Your task to perform on an android device: turn on improve location accuracy Image 0: 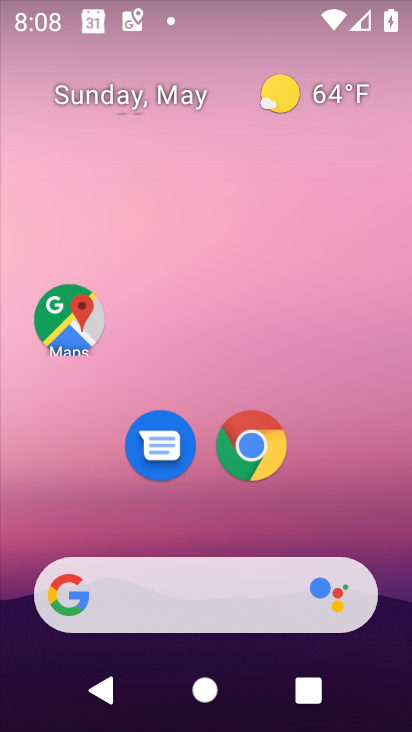
Step 0: drag from (177, 434) to (267, 35)
Your task to perform on an android device: turn on improve location accuracy Image 1: 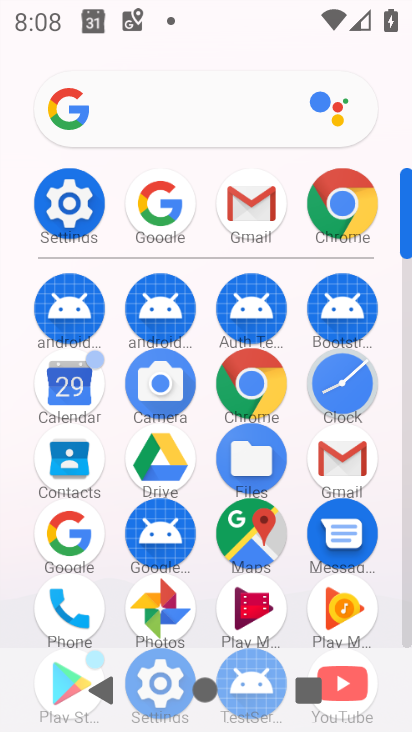
Step 1: click (69, 215)
Your task to perform on an android device: turn on improve location accuracy Image 2: 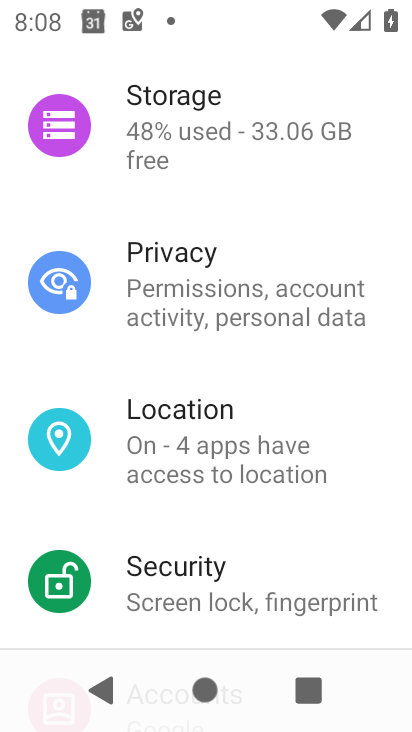
Step 2: click (213, 444)
Your task to perform on an android device: turn on improve location accuracy Image 3: 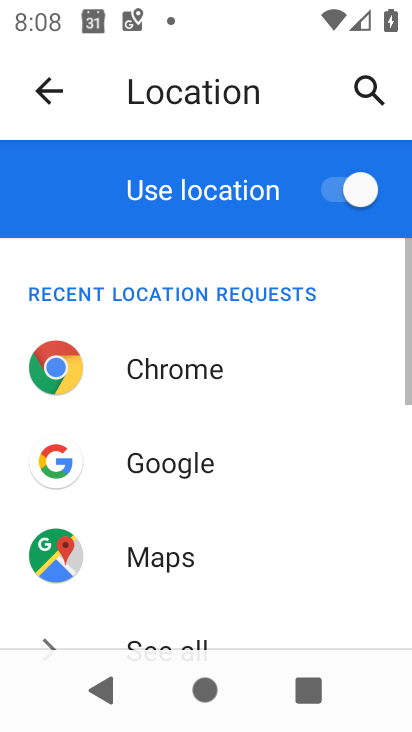
Step 3: drag from (282, 535) to (214, 5)
Your task to perform on an android device: turn on improve location accuracy Image 4: 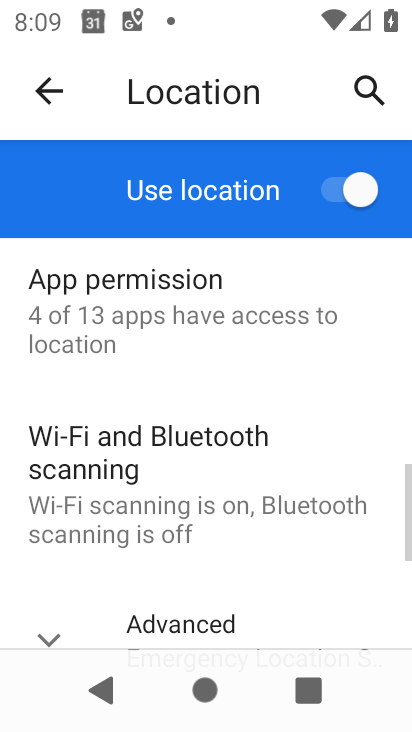
Step 4: drag from (211, 536) to (253, 147)
Your task to perform on an android device: turn on improve location accuracy Image 5: 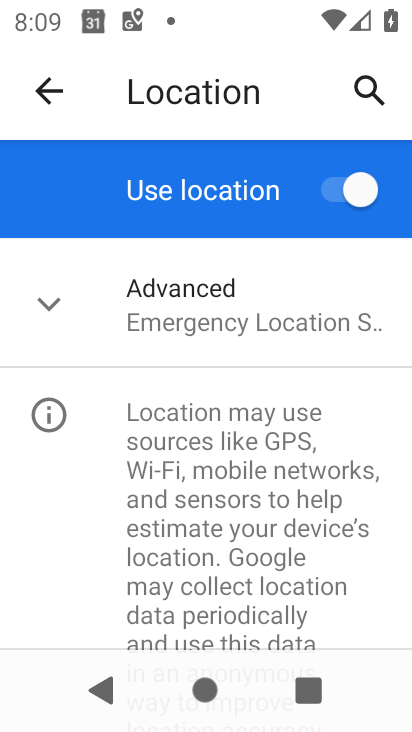
Step 5: click (158, 272)
Your task to perform on an android device: turn on improve location accuracy Image 6: 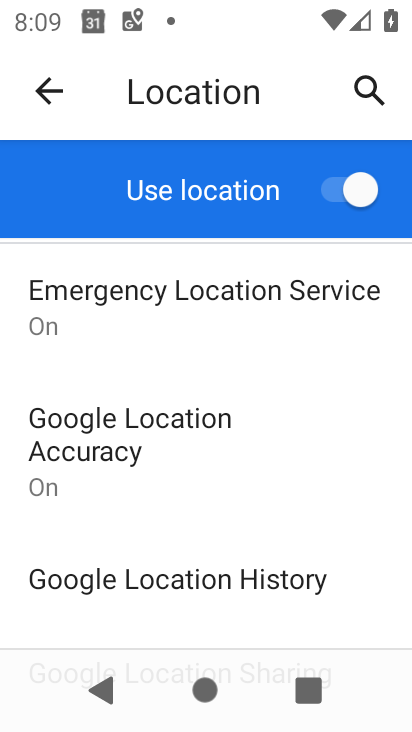
Step 6: drag from (186, 587) to (284, 38)
Your task to perform on an android device: turn on improve location accuracy Image 7: 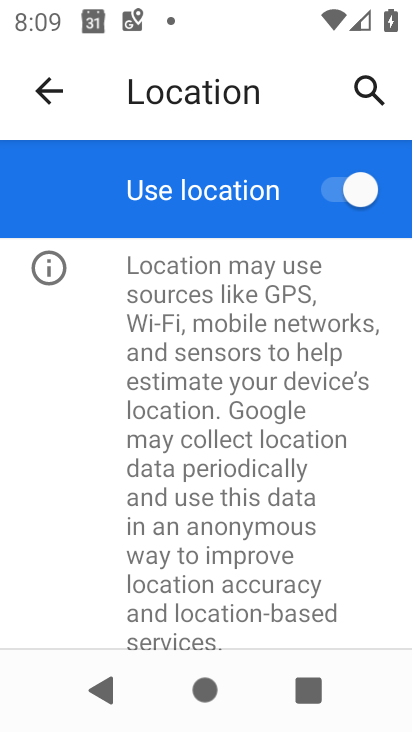
Step 7: drag from (300, 326) to (187, 731)
Your task to perform on an android device: turn on improve location accuracy Image 8: 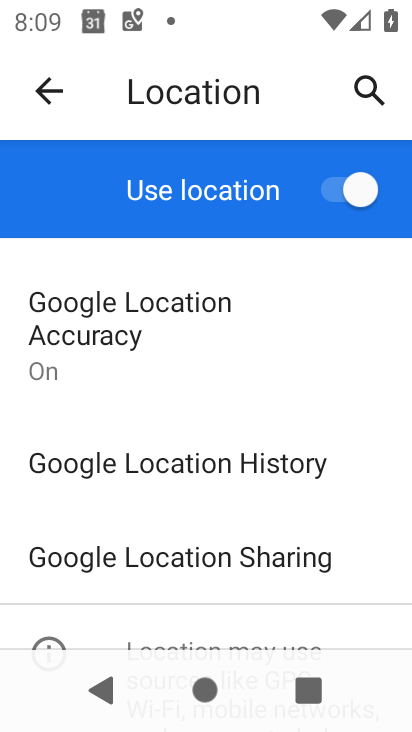
Step 8: click (137, 248)
Your task to perform on an android device: turn on improve location accuracy Image 9: 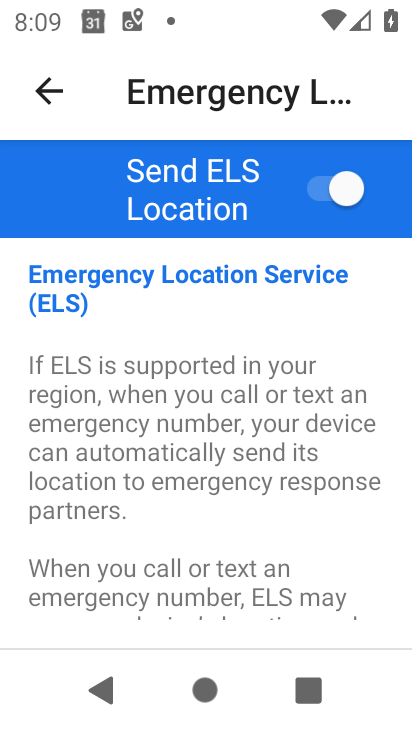
Step 9: click (52, 91)
Your task to perform on an android device: turn on improve location accuracy Image 10: 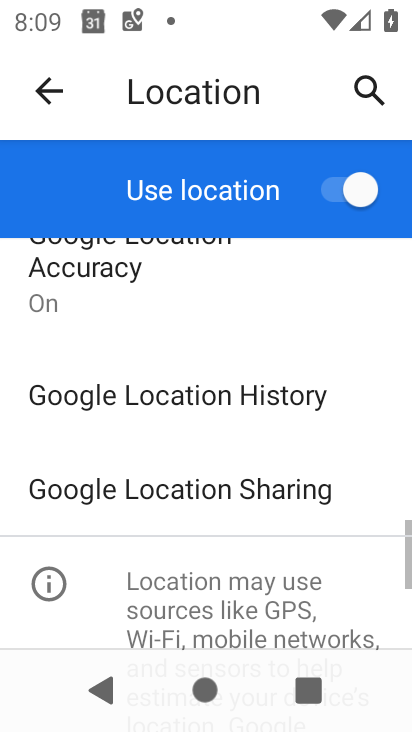
Step 10: drag from (197, 511) to (305, 688)
Your task to perform on an android device: turn on improve location accuracy Image 11: 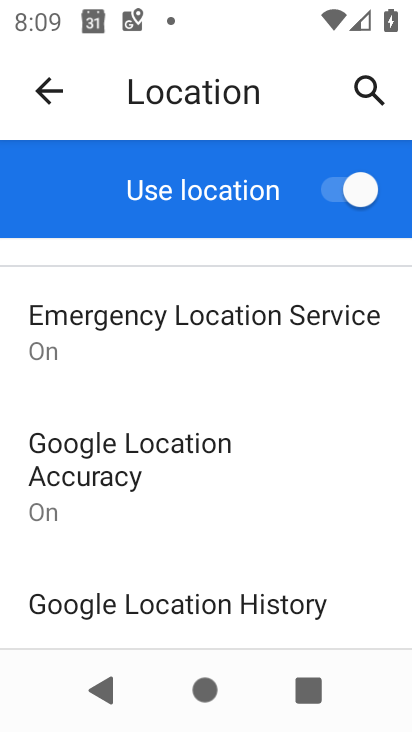
Step 11: click (164, 477)
Your task to perform on an android device: turn on improve location accuracy Image 12: 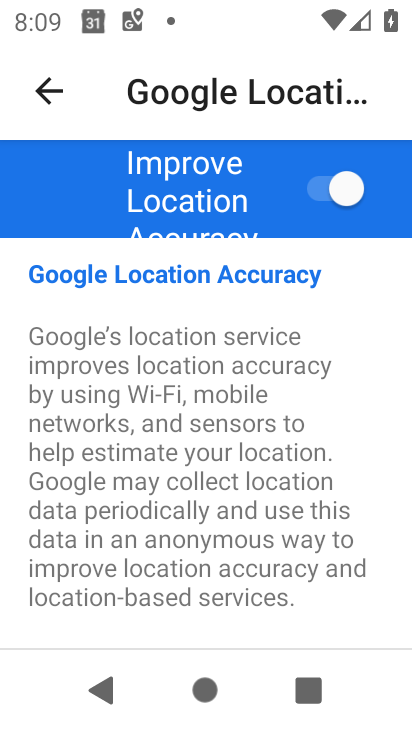
Step 12: task complete